Your task to perform on an android device: delete a single message in the gmail app Image 0: 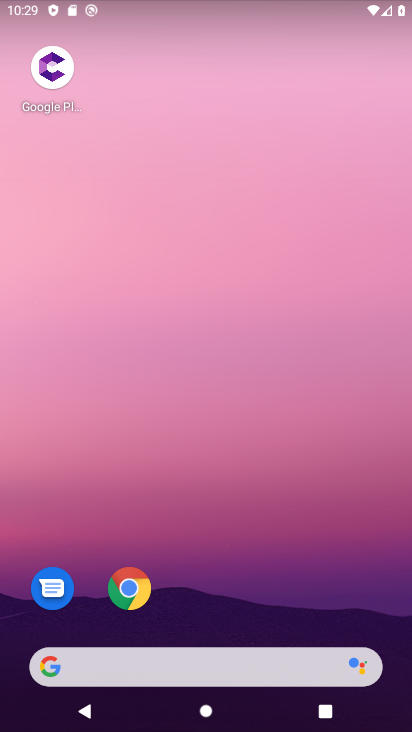
Step 0: drag from (315, 598) to (240, 203)
Your task to perform on an android device: delete a single message in the gmail app Image 1: 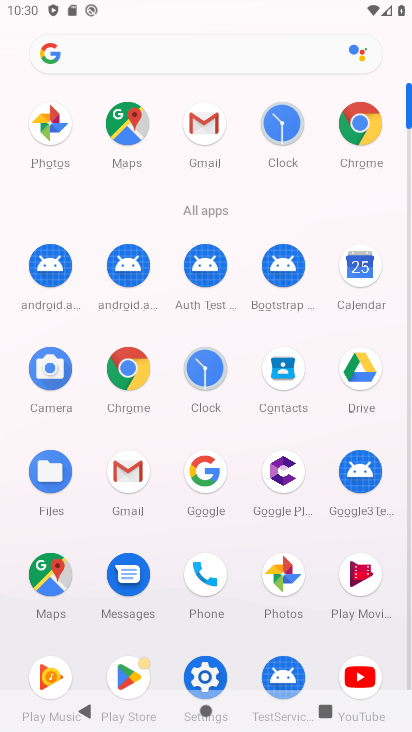
Step 1: click (131, 470)
Your task to perform on an android device: delete a single message in the gmail app Image 2: 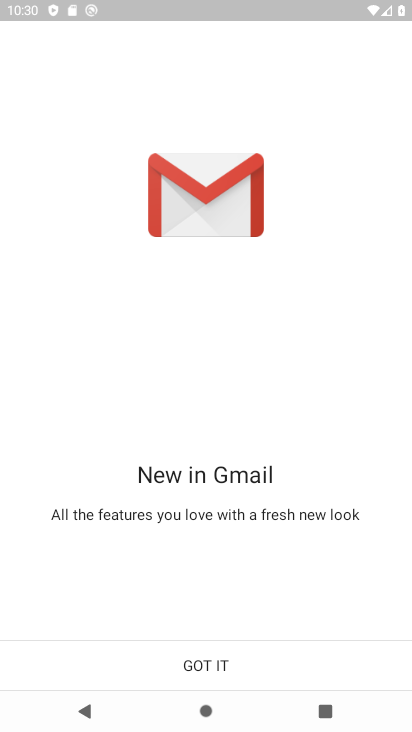
Step 2: click (228, 665)
Your task to perform on an android device: delete a single message in the gmail app Image 3: 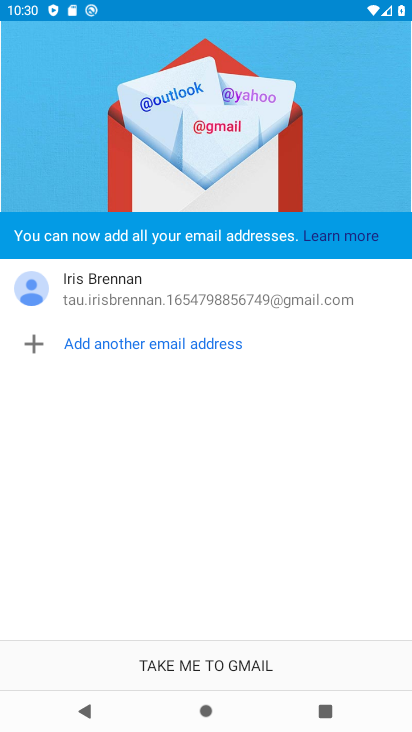
Step 3: click (233, 664)
Your task to perform on an android device: delete a single message in the gmail app Image 4: 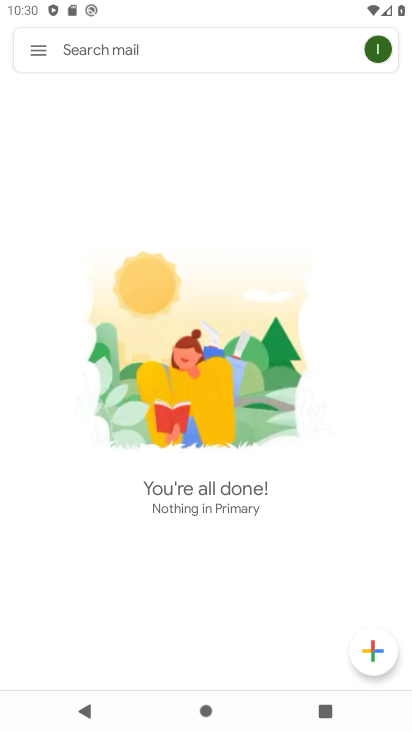
Step 4: click (36, 56)
Your task to perform on an android device: delete a single message in the gmail app Image 5: 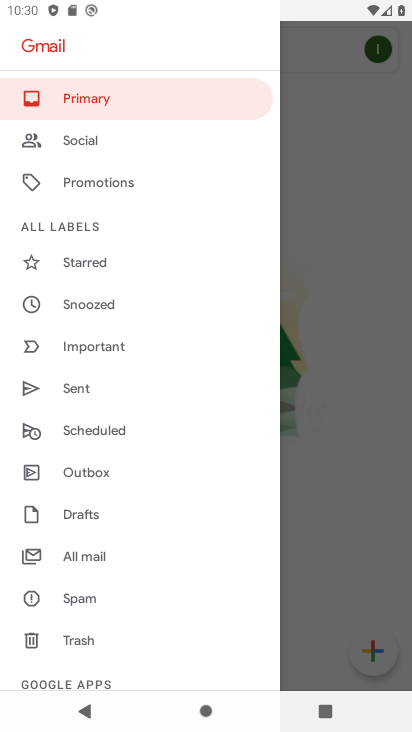
Step 5: click (114, 554)
Your task to perform on an android device: delete a single message in the gmail app Image 6: 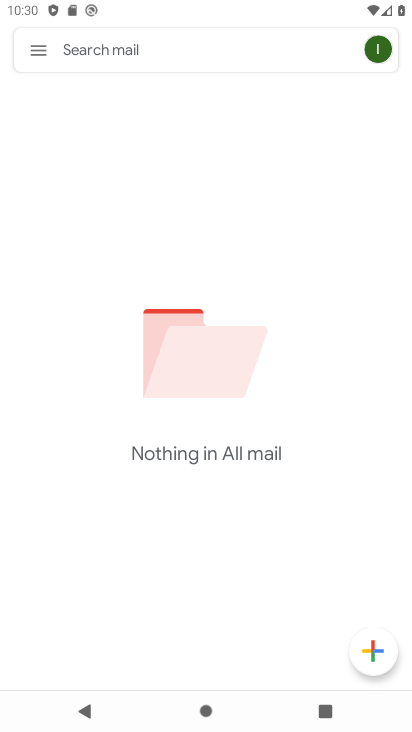
Step 6: task complete